Your task to perform on an android device: open app "Roku - Official Remote Control" (install if not already installed) Image 0: 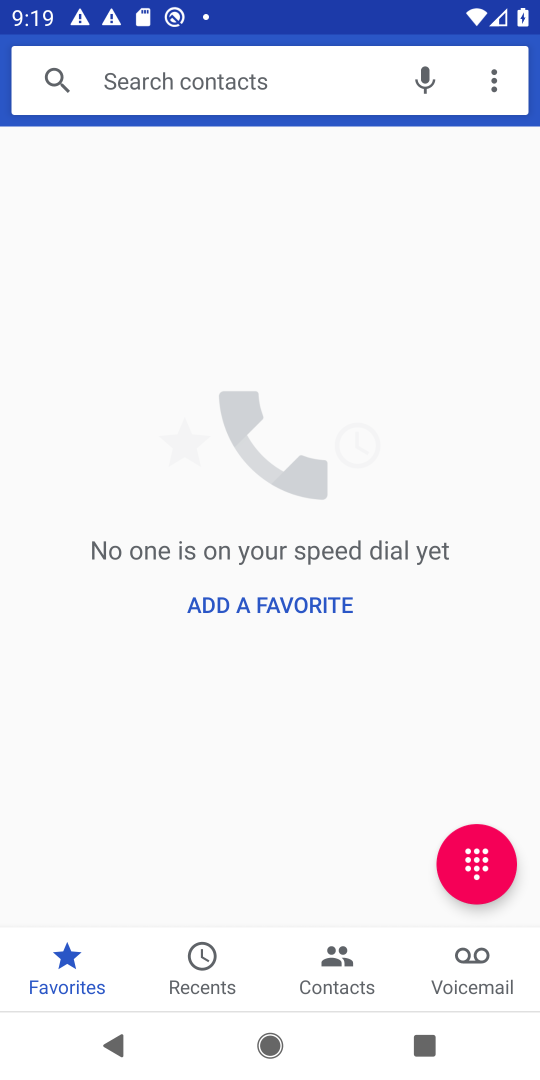
Step 0: drag from (219, 798) to (411, 509)
Your task to perform on an android device: open app "Roku - Official Remote Control" (install if not already installed) Image 1: 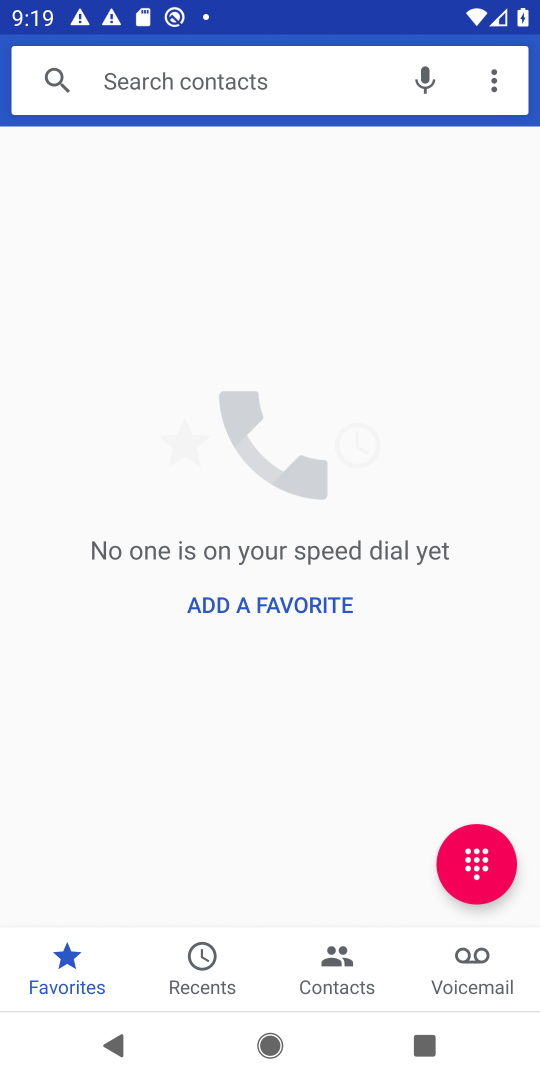
Step 1: press home button
Your task to perform on an android device: open app "Roku - Official Remote Control" (install if not already installed) Image 2: 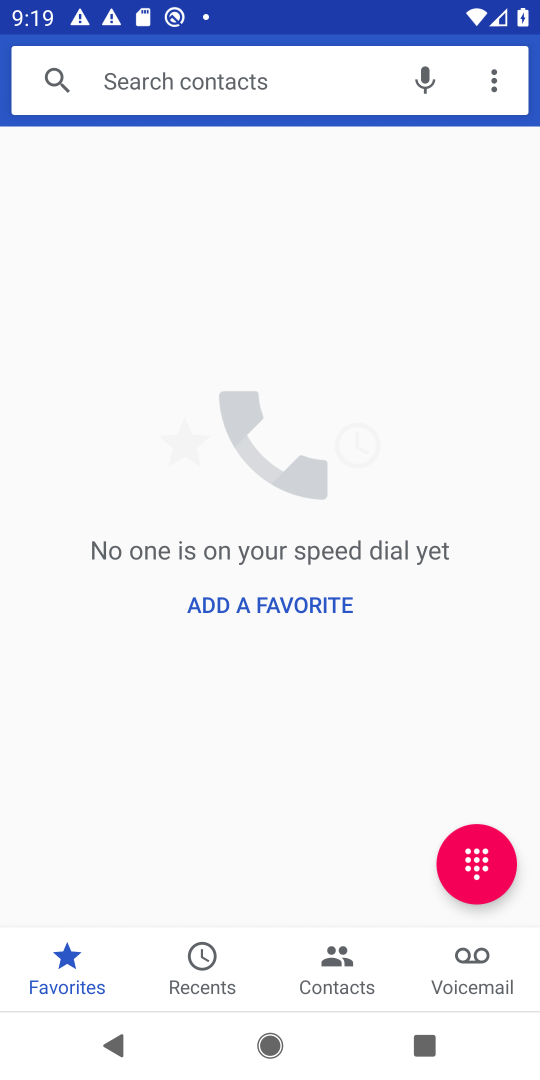
Step 2: press home button
Your task to perform on an android device: open app "Roku - Official Remote Control" (install if not already installed) Image 3: 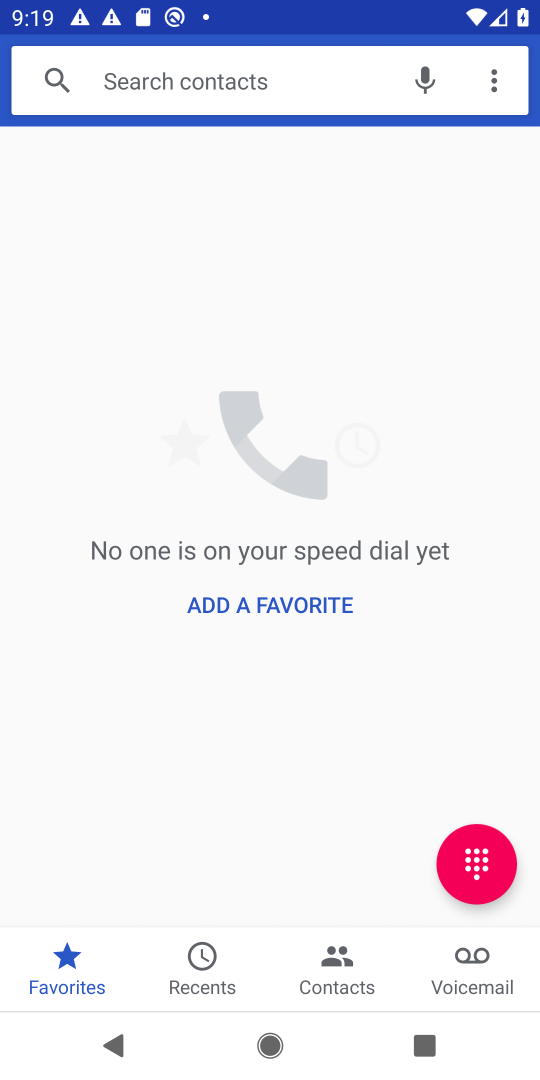
Step 3: click (359, 320)
Your task to perform on an android device: open app "Roku - Official Remote Control" (install if not already installed) Image 4: 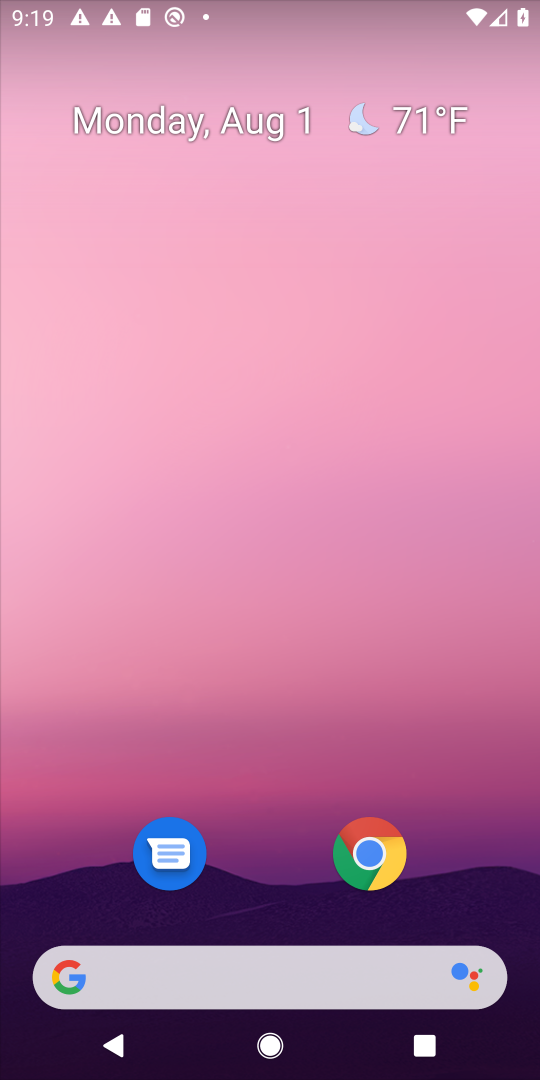
Step 4: drag from (261, 793) to (324, 242)
Your task to perform on an android device: open app "Roku - Official Remote Control" (install if not already installed) Image 5: 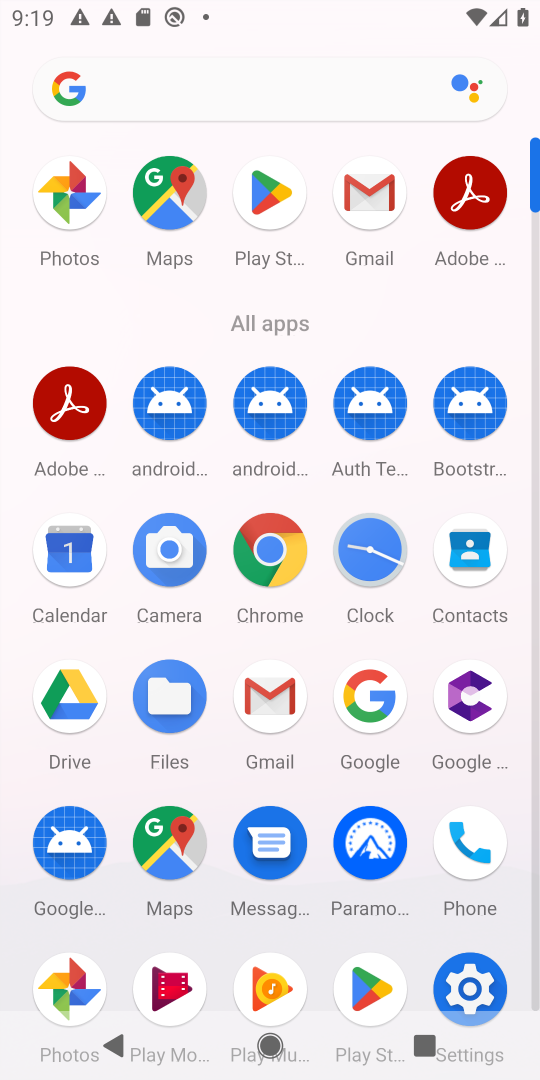
Step 5: drag from (209, 919) to (288, 429)
Your task to perform on an android device: open app "Roku - Official Remote Control" (install if not already installed) Image 6: 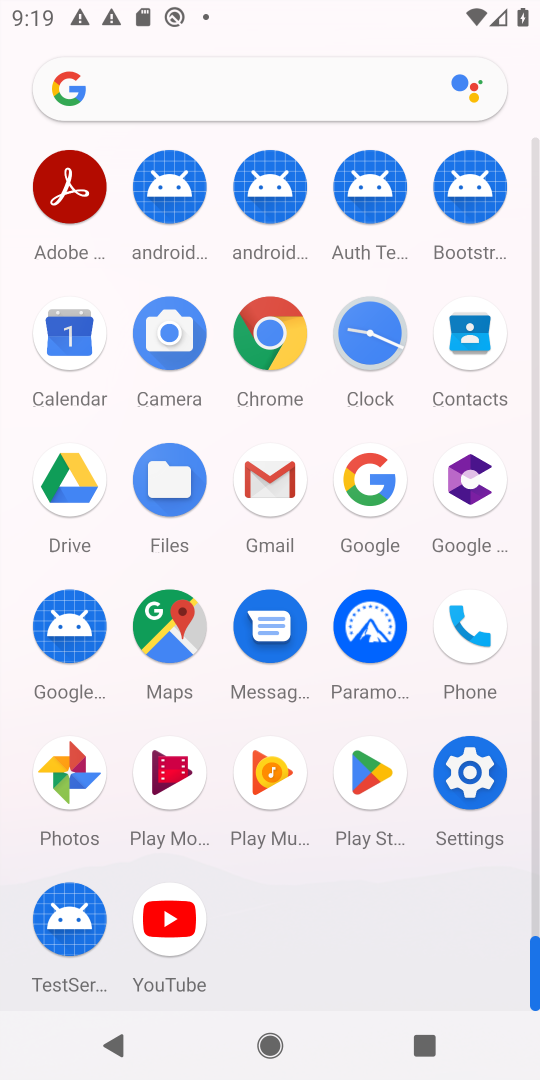
Step 6: drag from (323, 925) to (383, 608)
Your task to perform on an android device: open app "Roku - Official Remote Control" (install if not already installed) Image 7: 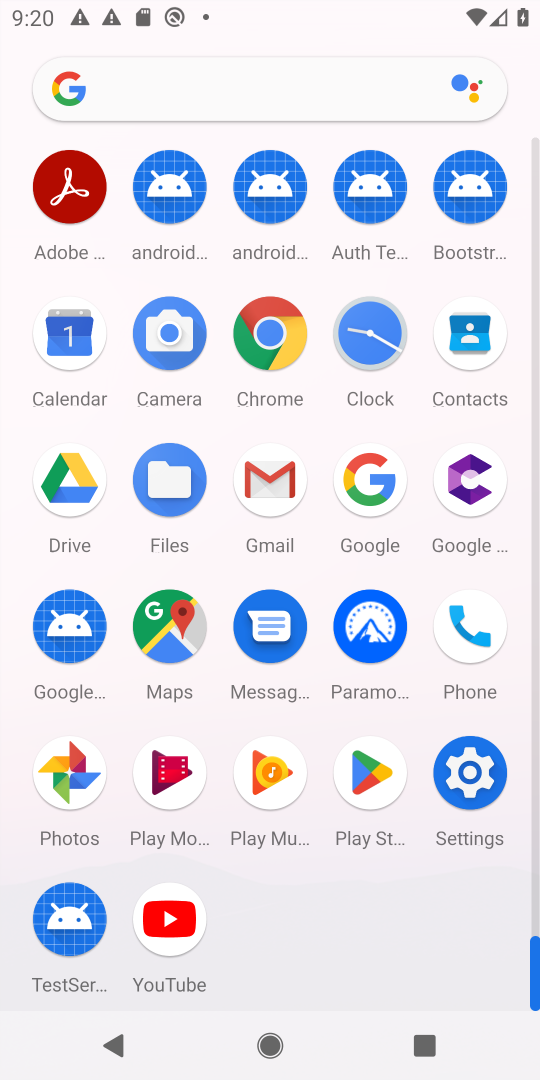
Step 7: click (363, 764)
Your task to perform on an android device: open app "Roku - Official Remote Control" (install if not already installed) Image 8: 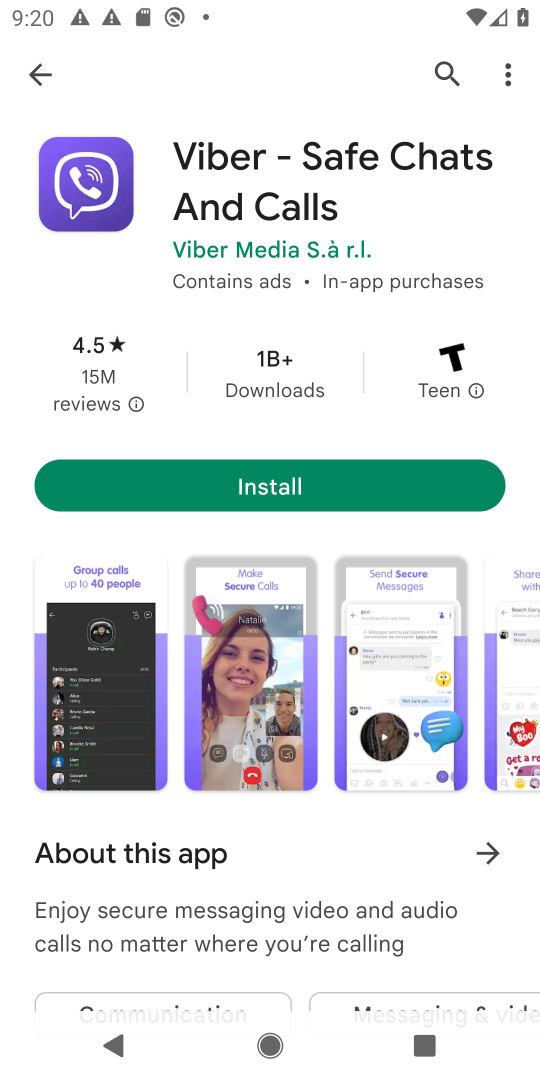
Step 8: click (464, 78)
Your task to perform on an android device: open app "Roku - Official Remote Control" (install if not already installed) Image 9: 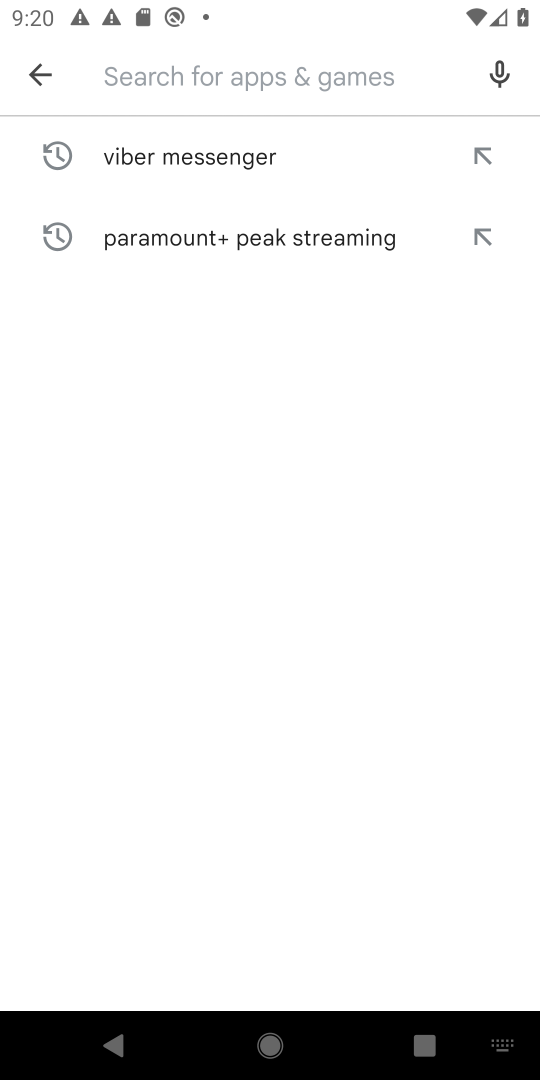
Step 9: type "Roku - Official Remote Control"
Your task to perform on an android device: open app "Roku - Official Remote Control" (install if not already installed) Image 10: 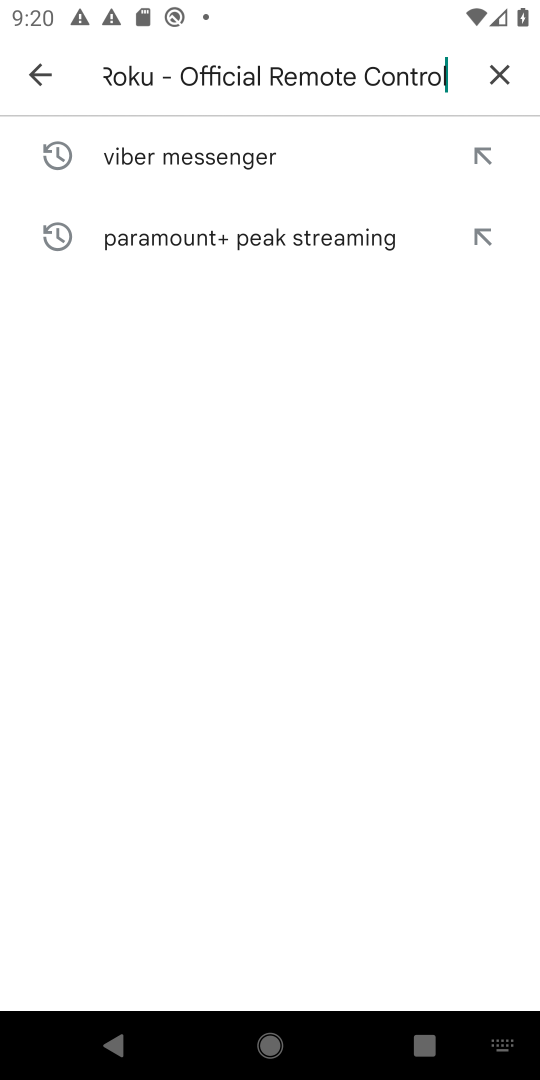
Step 10: type ""
Your task to perform on an android device: open app "Roku - Official Remote Control" (install if not already installed) Image 11: 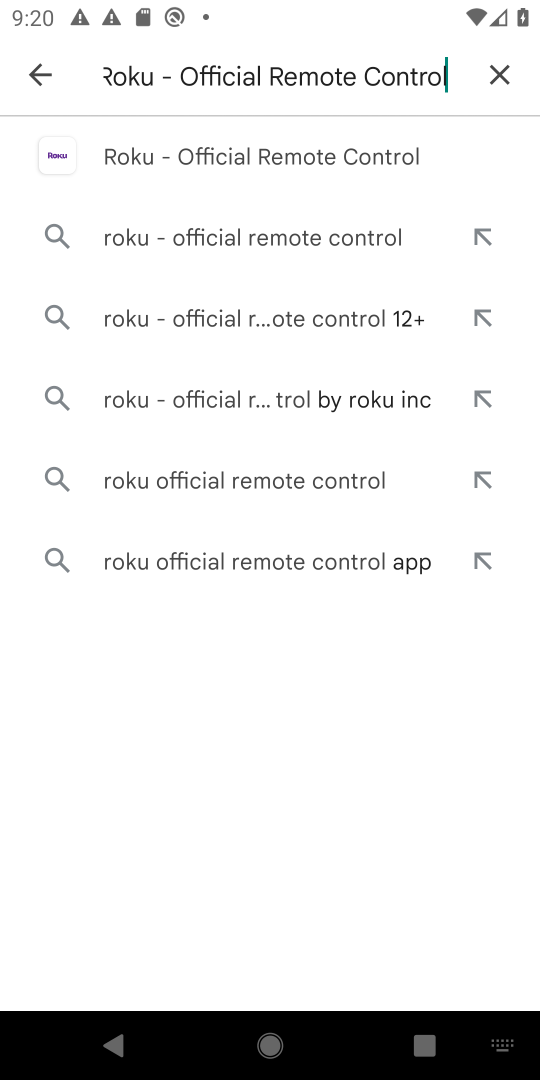
Step 11: click (237, 155)
Your task to perform on an android device: open app "Roku - Official Remote Control" (install if not already installed) Image 12: 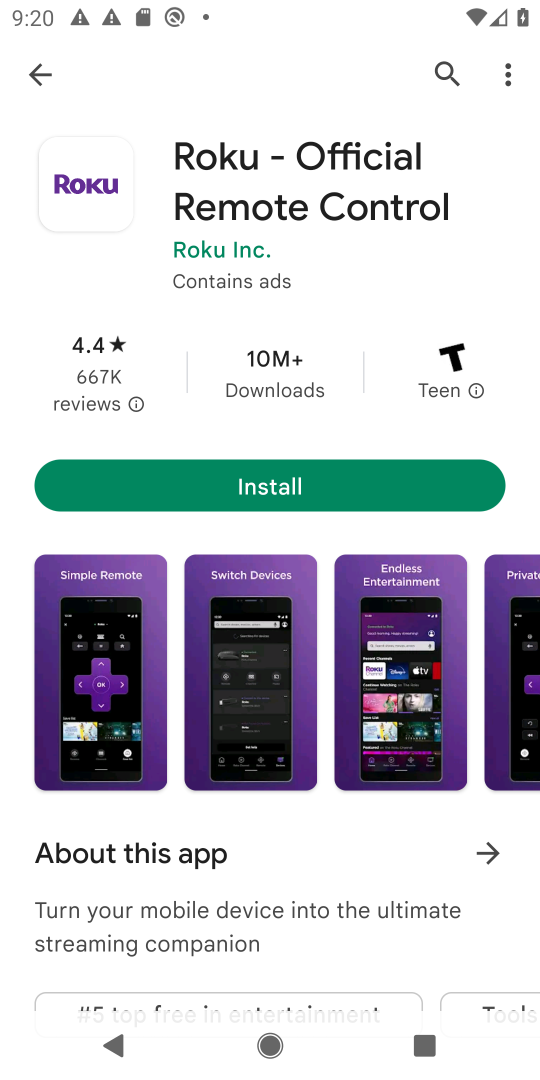
Step 12: click (197, 484)
Your task to perform on an android device: open app "Roku - Official Remote Control" (install if not already installed) Image 13: 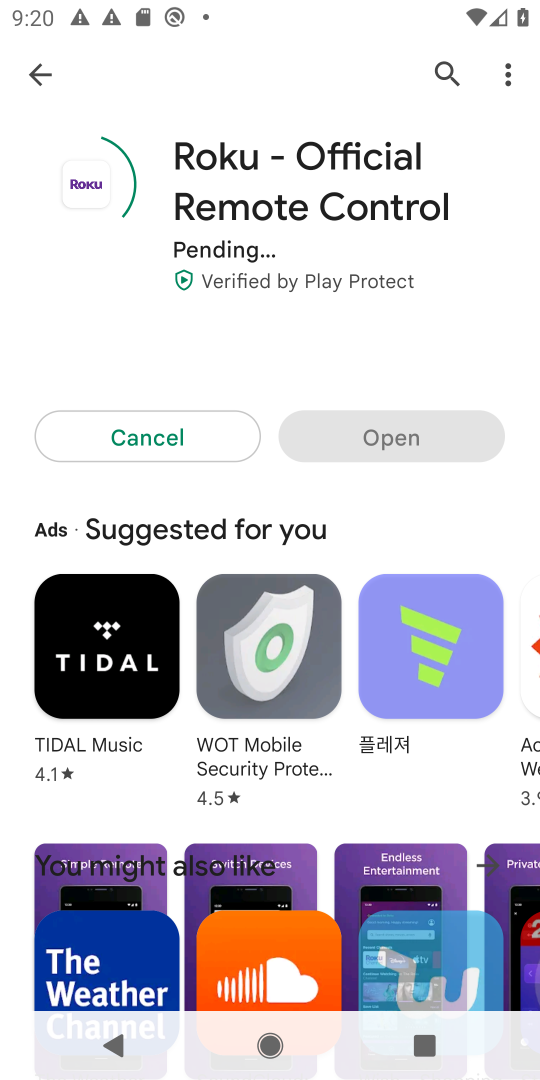
Step 13: drag from (312, 916) to (394, 413)
Your task to perform on an android device: open app "Roku - Official Remote Control" (install if not already installed) Image 14: 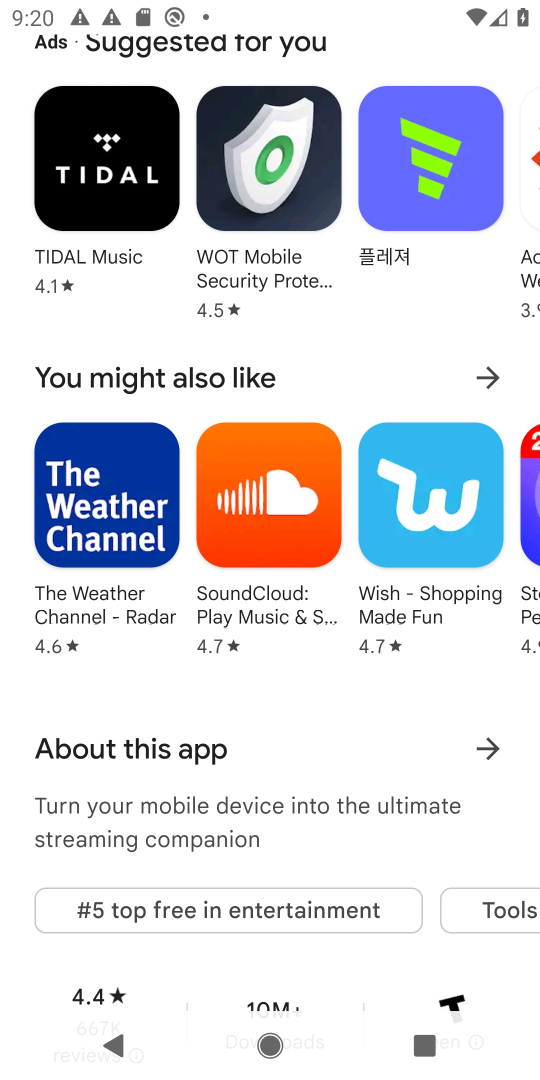
Step 14: drag from (353, 205) to (531, 466)
Your task to perform on an android device: open app "Roku - Official Remote Control" (install if not already installed) Image 15: 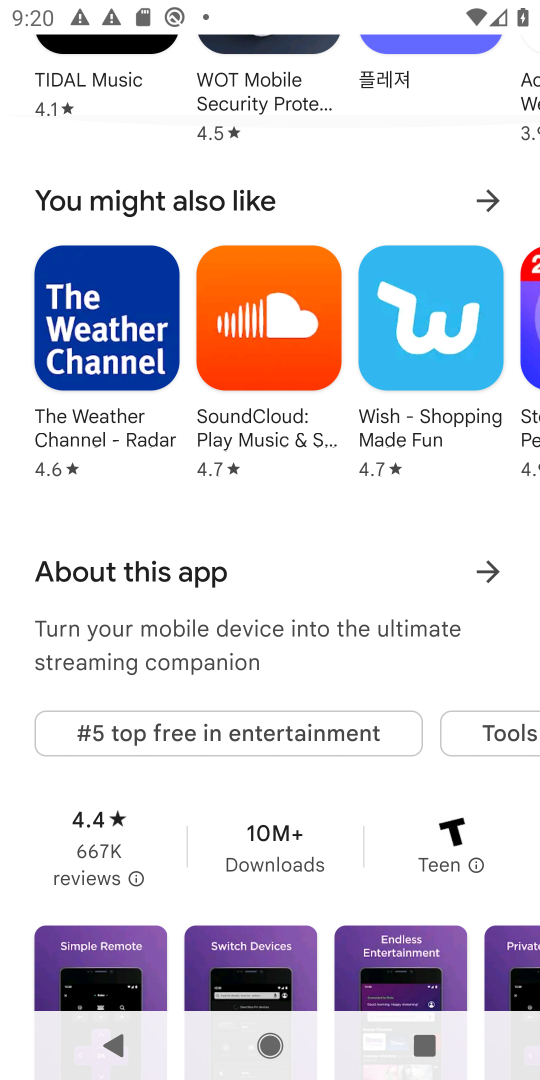
Step 15: drag from (376, 225) to (397, 911)
Your task to perform on an android device: open app "Roku - Official Remote Control" (install if not already installed) Image 16: 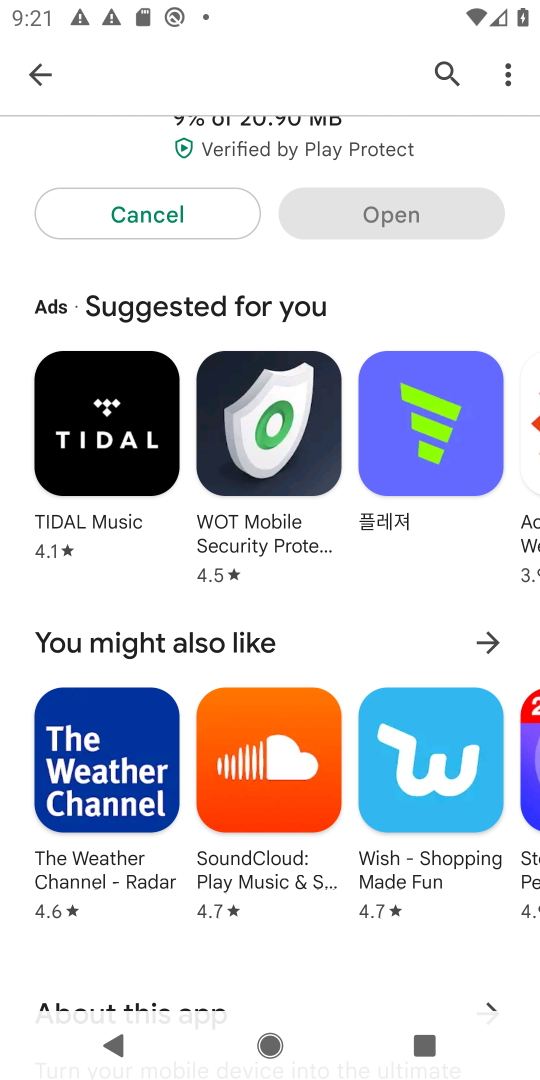
Step 16: drag from (381, 126) to (403, 1079)
Your task to perform on an android device: open app "Roku - Official Remote Control" (install if not already installed) Image 17: 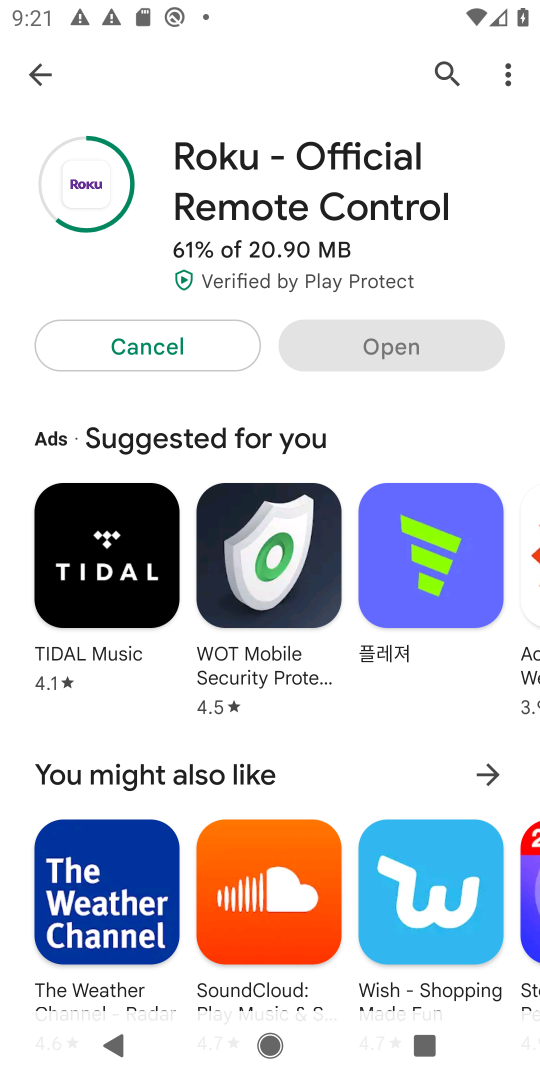
Step 17: drag from (347, 214) to (388, 660)
Your task to perform on an android device: open app "Roku - Official Remote Control" (install if not already installed) Image 18: 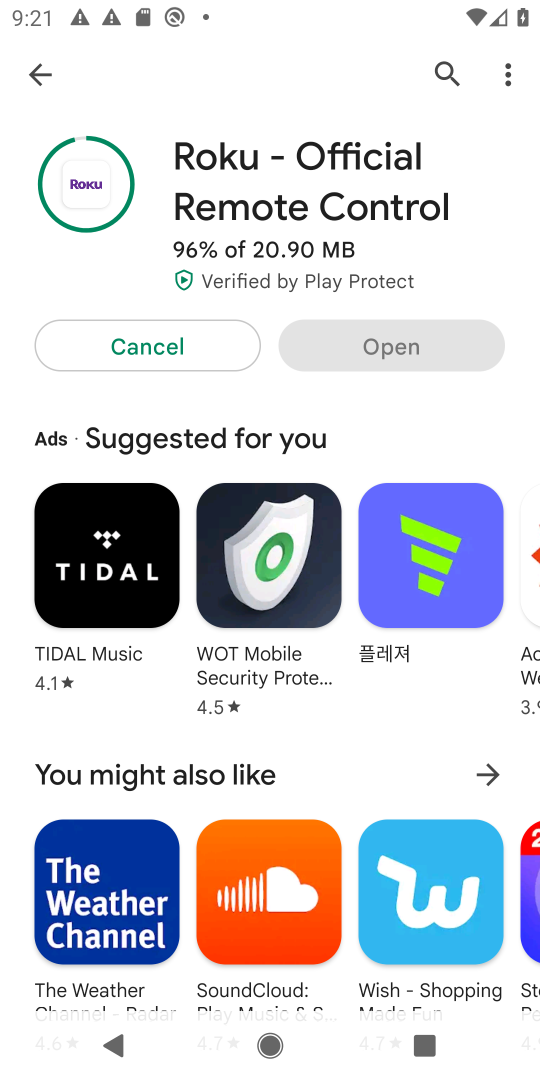
Step 18: drag from (340, 278) to (402, 1036)
Your task to perform on an android device: open app "Roku - Official Remote Control" (install if not already installed) Image 19: 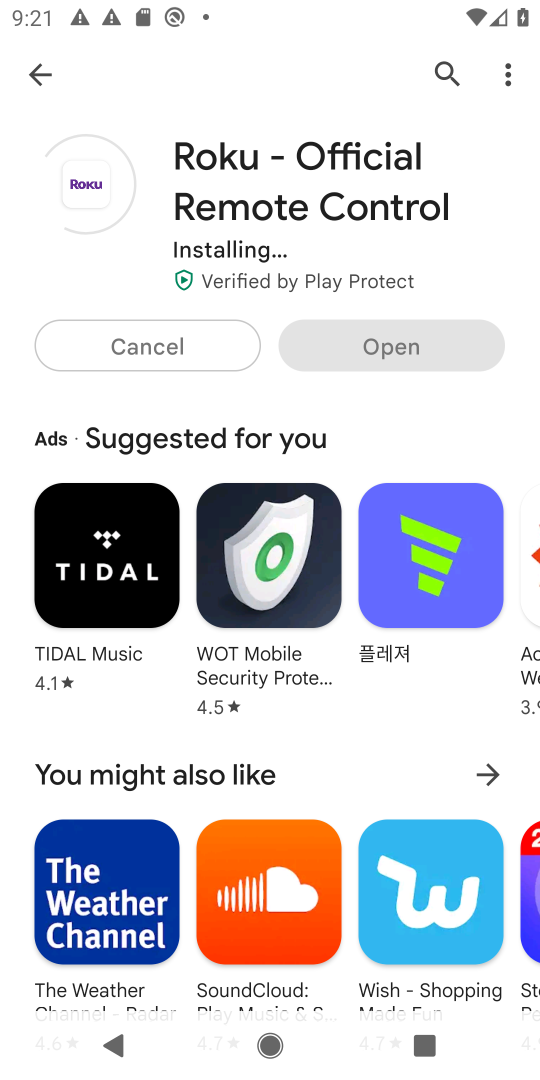
Step 19: drag from (344, 495) to (311, 823)
Your task to perform on an android device: open app "Roku - Official Remote Control" (install if not already installed) Image 20: 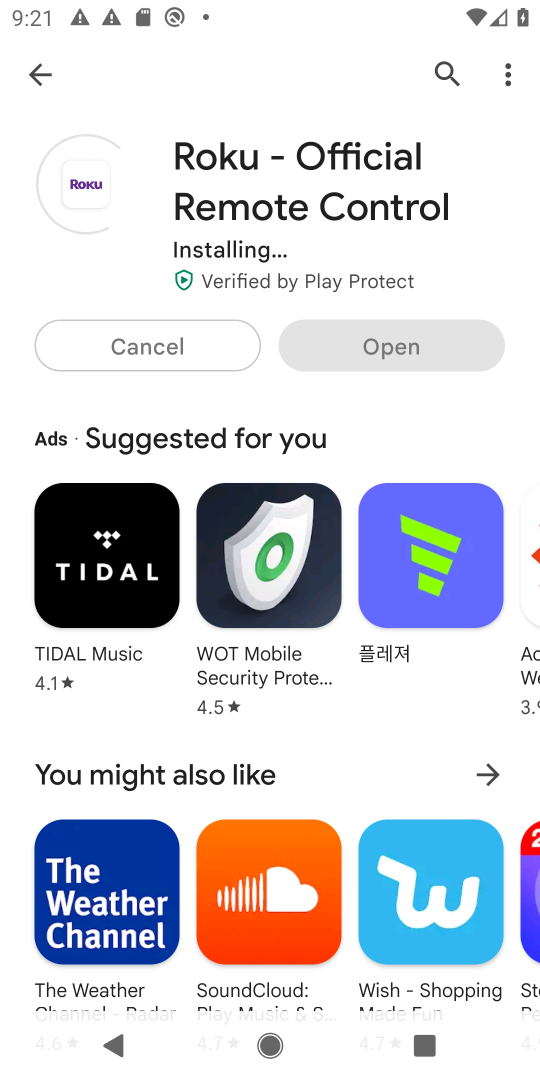
Step 20: drag from (347, 902) to (410, 378)
Your task to perform on an android device: open app "Roku - Official Remote Control" (install if not already installed) Image 21: 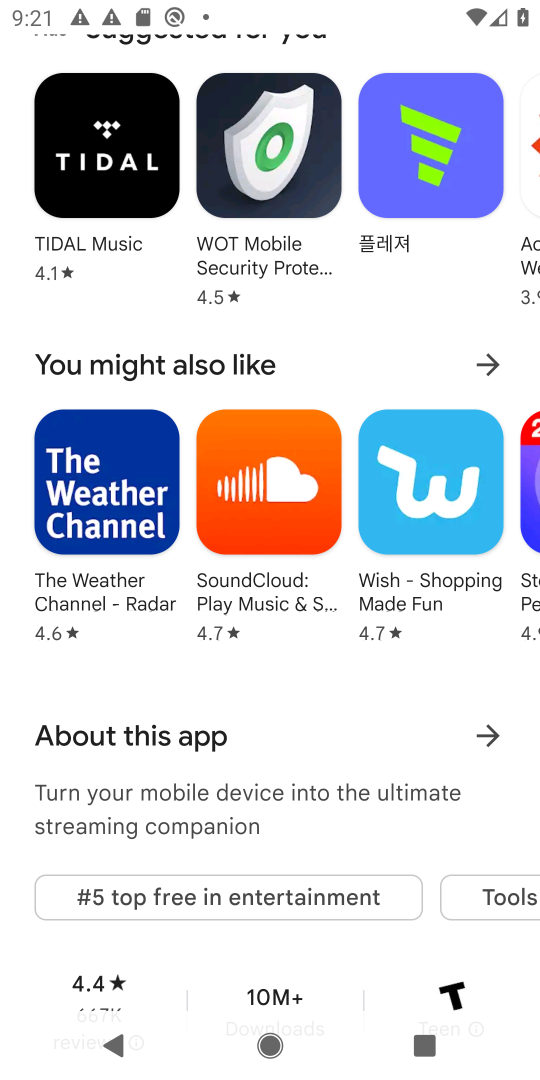
Step 21: drag from (419, 340) to (539, 455)
Your task to perform on an android device: open app "Roku - Official Remote Control" (install if not already installed) Image 22: 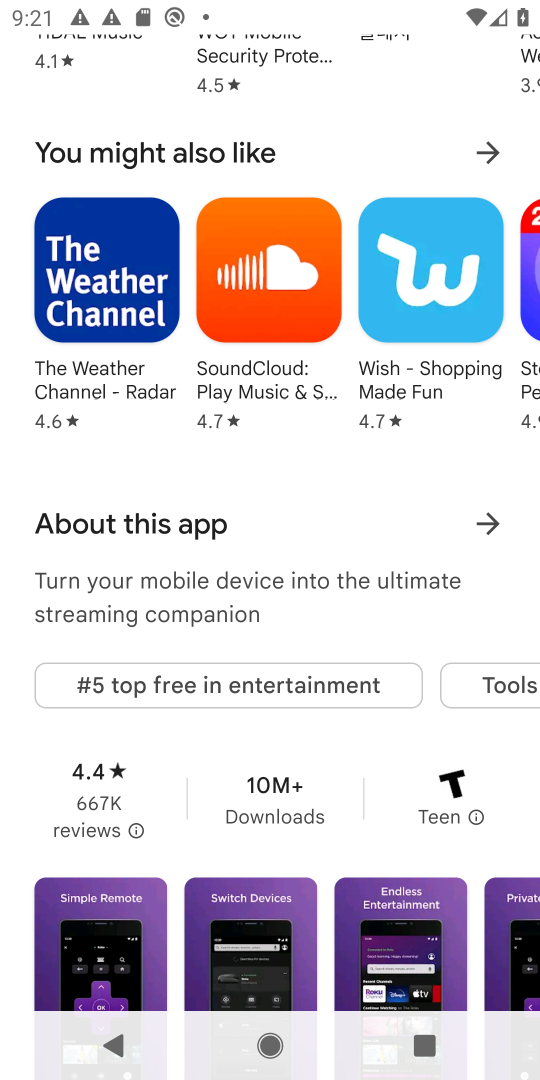
Step 22: drag from (368, 130) to (396, 1056)
Your task to perform on an android device: open app "Roku - Official Remote Control" (install if not already installed) Image 23: 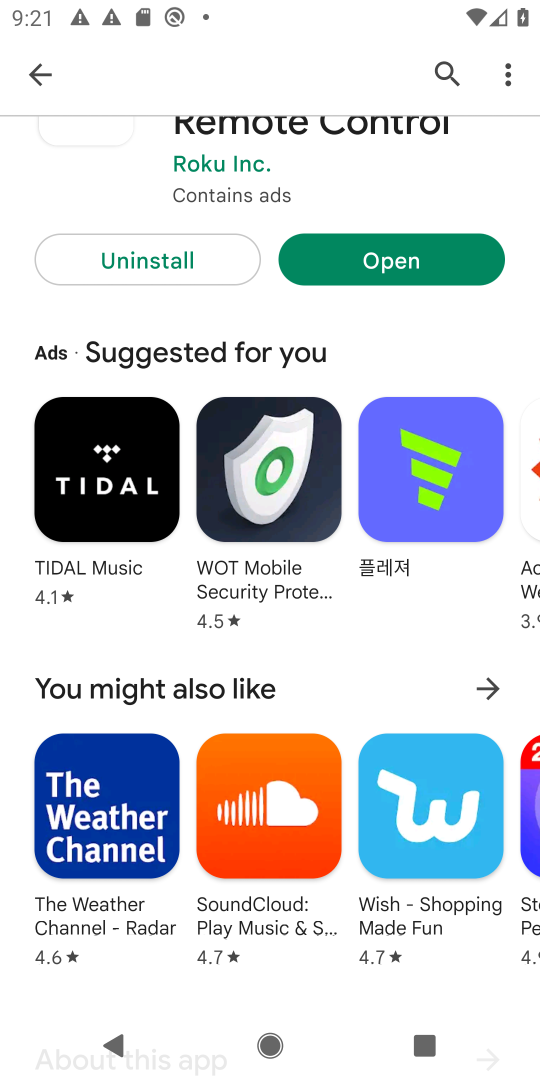
Step 23: drag from (324, 205) to (531, 544)
Your task to perform on an android device: open app "Roku - Official Remote Control" (install if not already installed) Image 24: 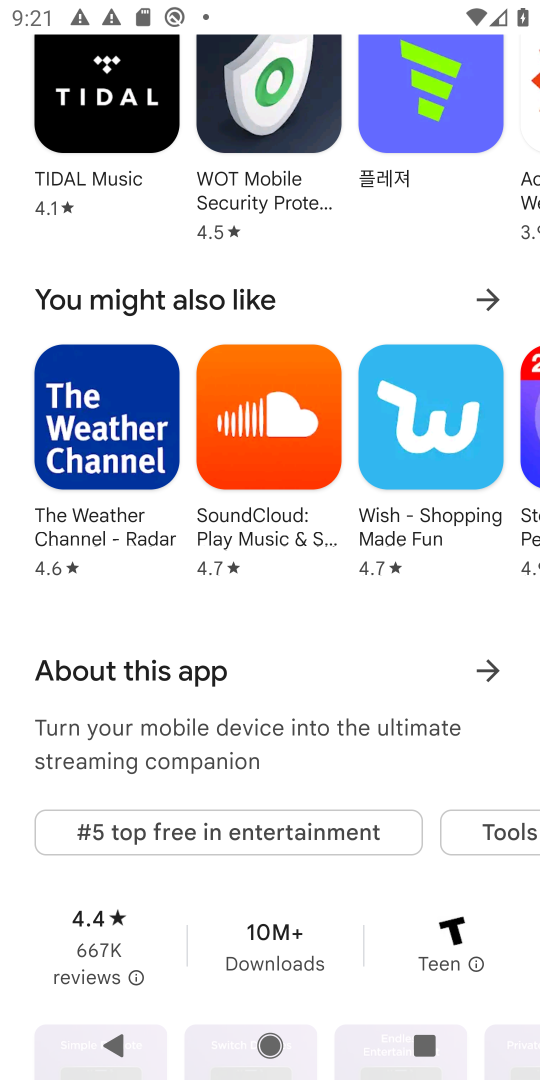
Step 24: drag from (328, 221) to (387, 1029)
Your task to perform on an android device: open app "Roku - Official Remote Control" (install if not already installed) Image 25: 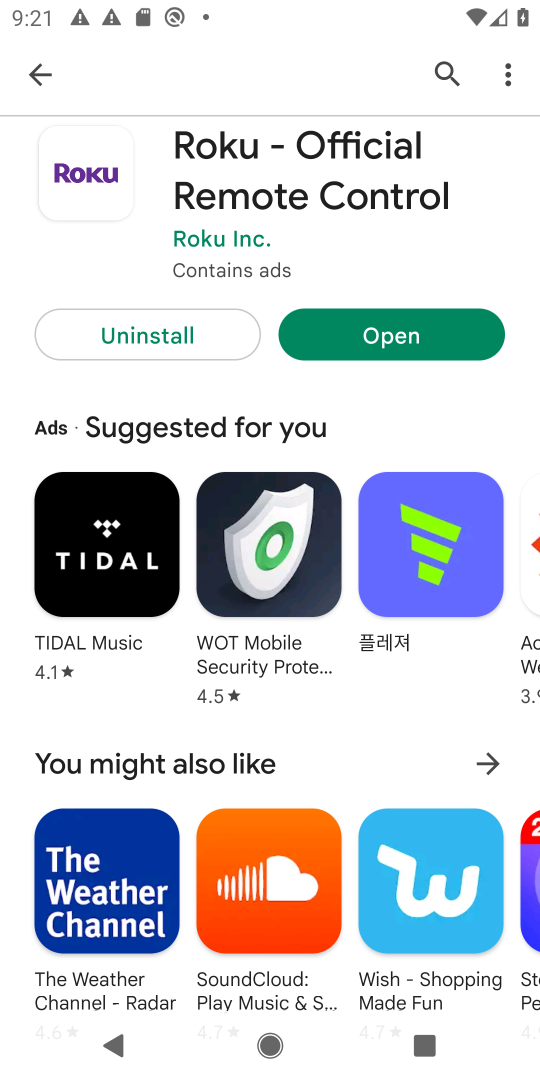
Step 25: drag from (300, 196) to (441, 1073)
Your task to perform on an android device: open app "Roku - Official Remote Control" (install if not already installed) Image 26: 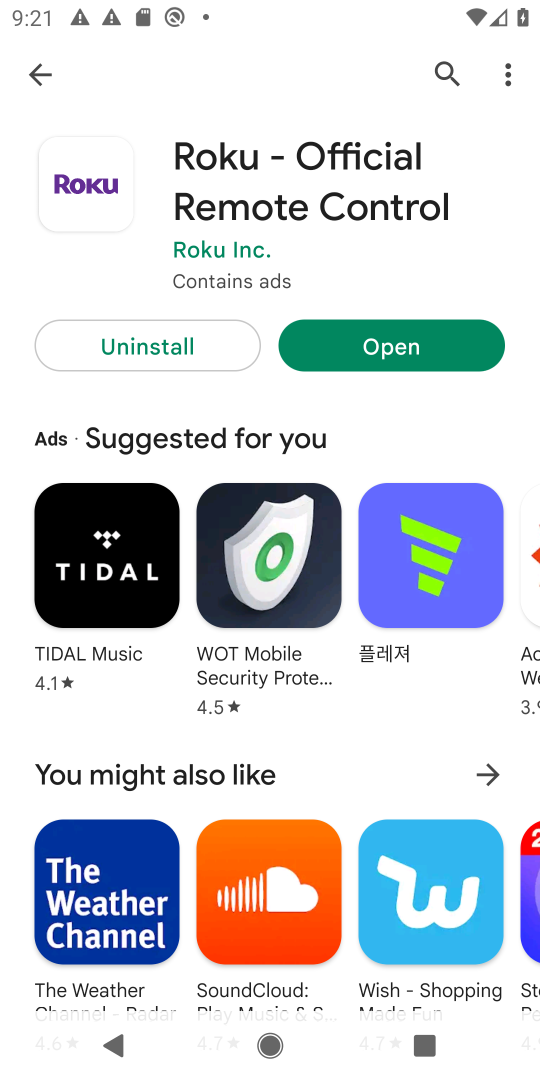
Step 26: click (369, 356)
Your task to perform on an android device: open app "Roku - Official Remote Control" (install if not already installed) Image 27: 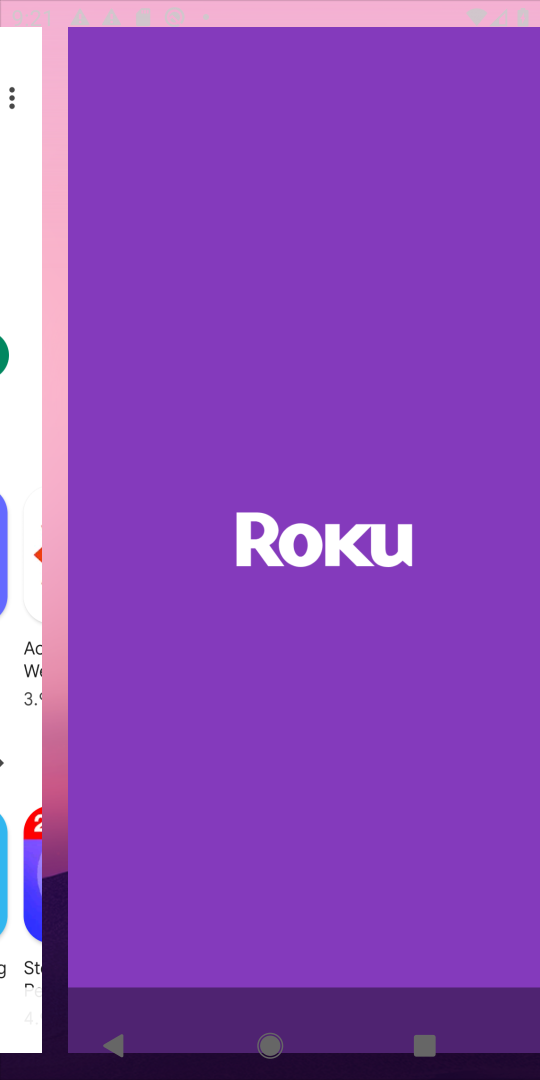
Step 27: task complete